Your task to perform on an android device: find photos in the google photos app Image 0: 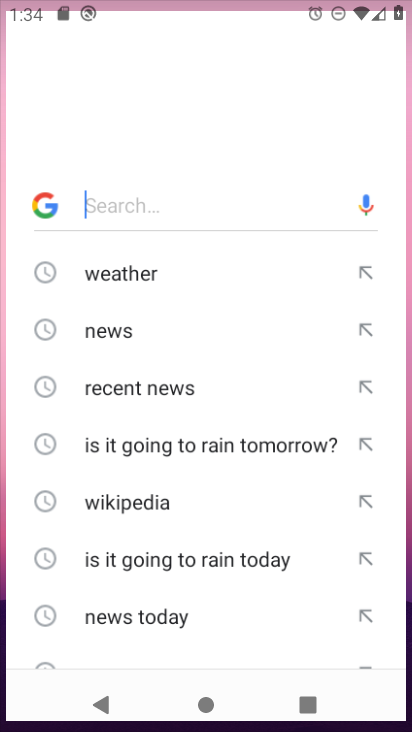
Step 0: drag from (208, 612) to (250, 321)
Your task to perform on an android device: find photos in the google photos app Image 1: 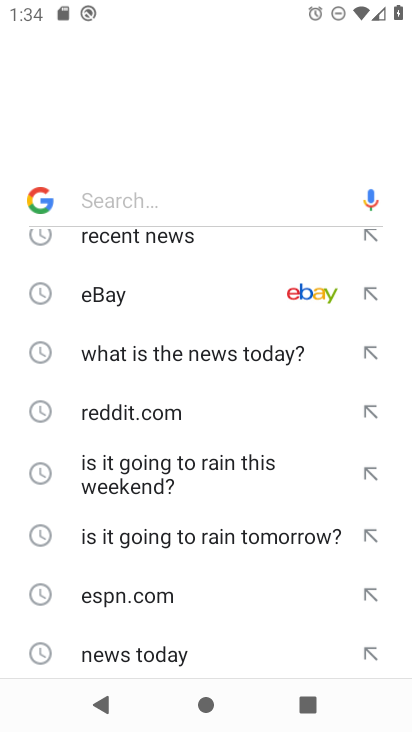
Step 1: press home button
Your task to perform on an android device: find photos in the google photos app Image 2: 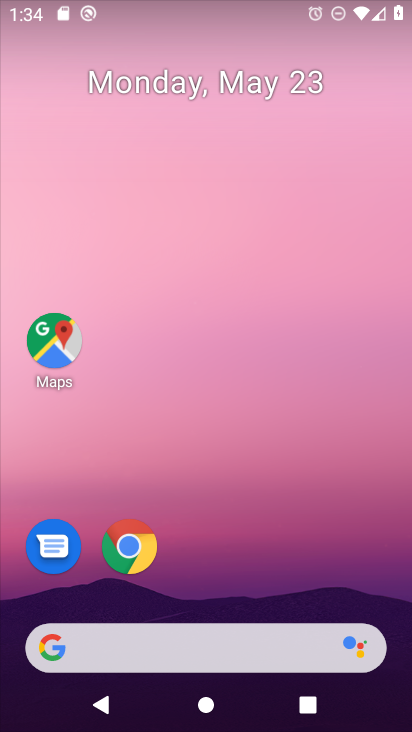
Step 2: drag from (195, 592) to (320, 15)
Your task to perform on an android device: find photos in the google photos app Image 3: 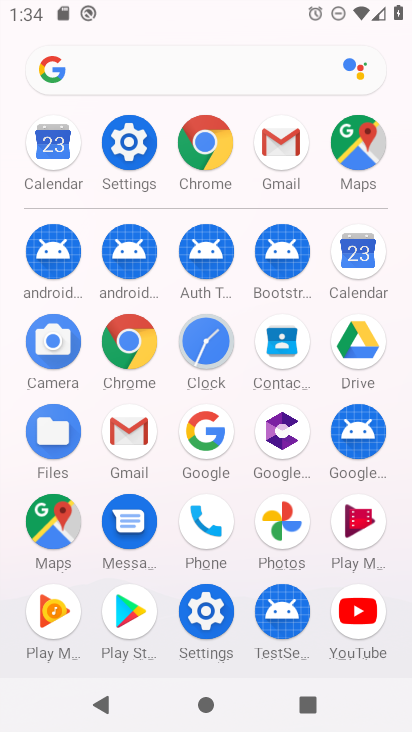
Step 3: click (293, 539)
Your task to perform on an android device: find photos in the google photos app Image 4: 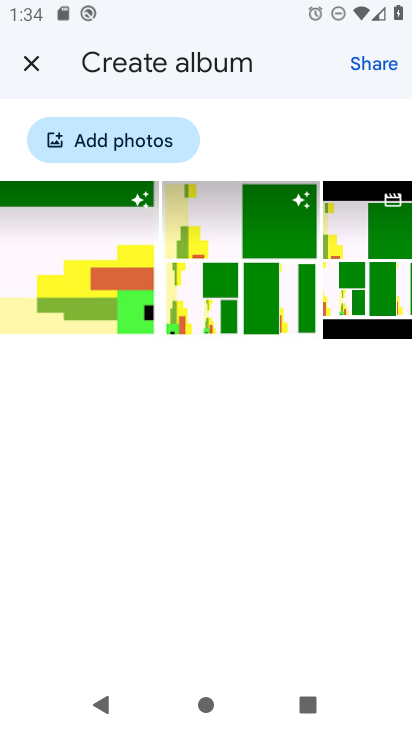
Step 4: click (30, 68)
Your task to perform on an android device: find photos in the google photos app Image 5: 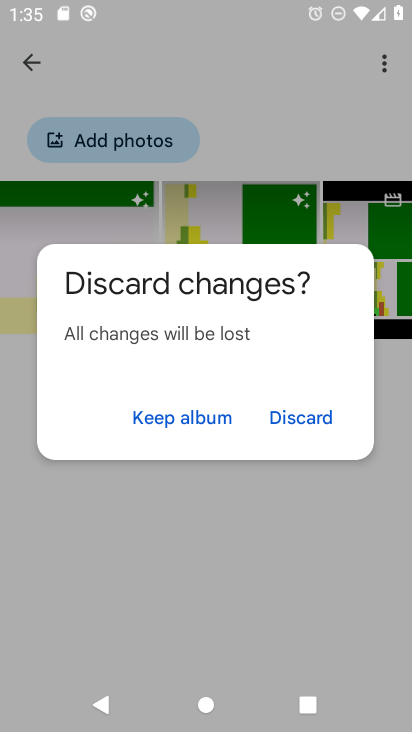
Step 5: click (328, 415)
Your task to perform on an android device: find photos in the google photos app Image 6: 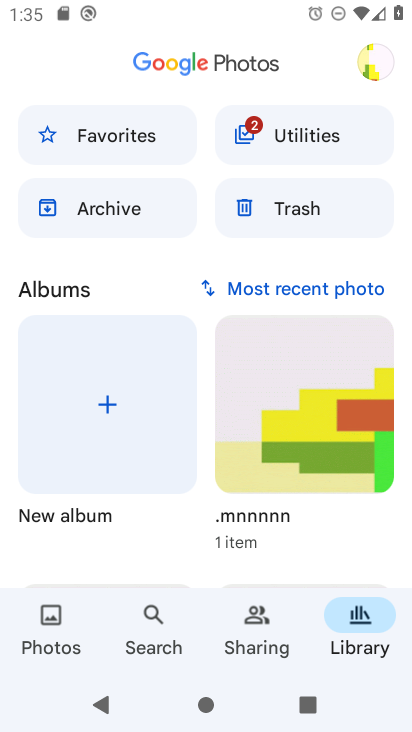
Step 6: click (67, 622)
Your task to perform on an android device: find photos in the google photos app Image 7: 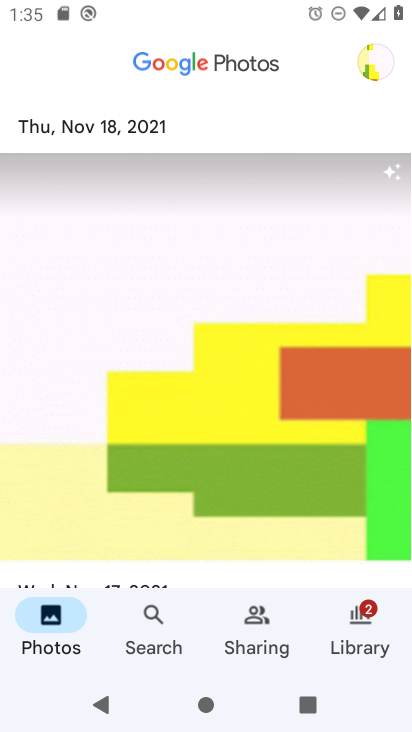
Step 7: task complete